Your task to perform on an android device: check the backup settings in the google photos Image 0: 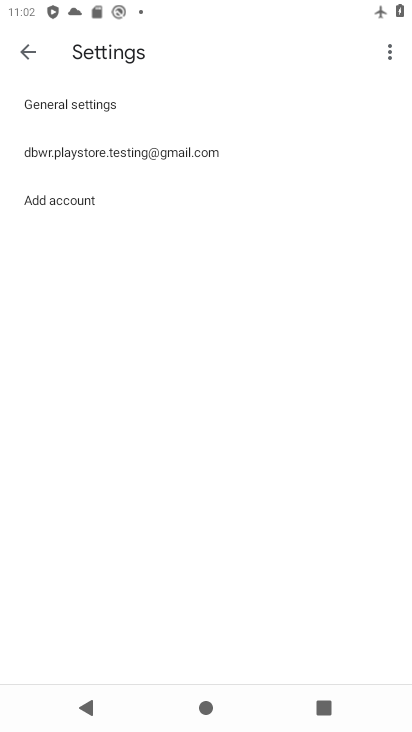
Step 0: press home button
Your task to perform on an android device: check the backup settings in the google photos Image 1: 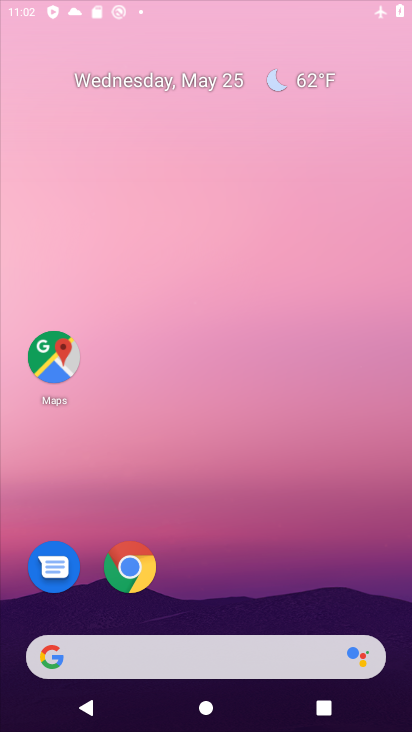
Step 1: drag from (343, 629) to (230, 25)
Your task to perform on an android device: check the backup settings in the google photos Image 2: 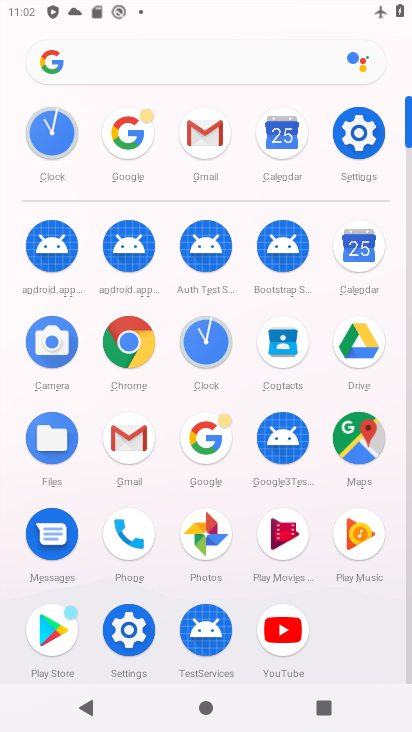
Step 2: click (232, 553)
Your task to perform on an android device: check the backup settings in the google photos Image 3: 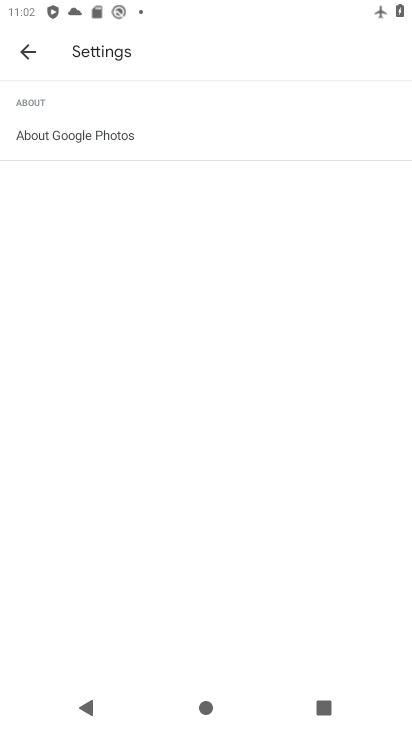
Step 3: press back button
Your task to perform on an android device: check the backup settings in the google photos Image 4: 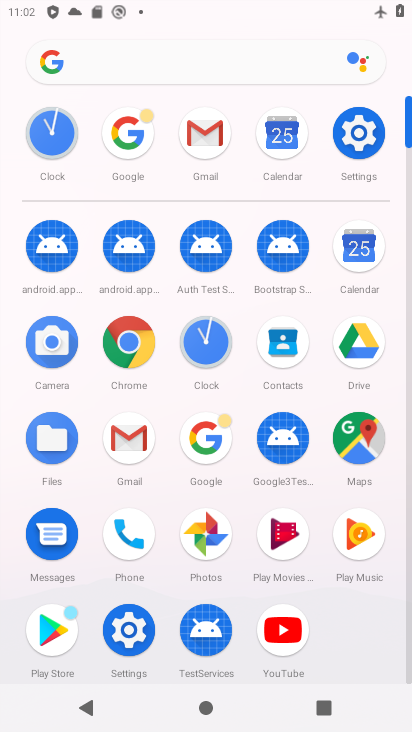
Step 4: click (204, 528)
Your task to perform on an android device: check the backup settings in the google photos Image 5: 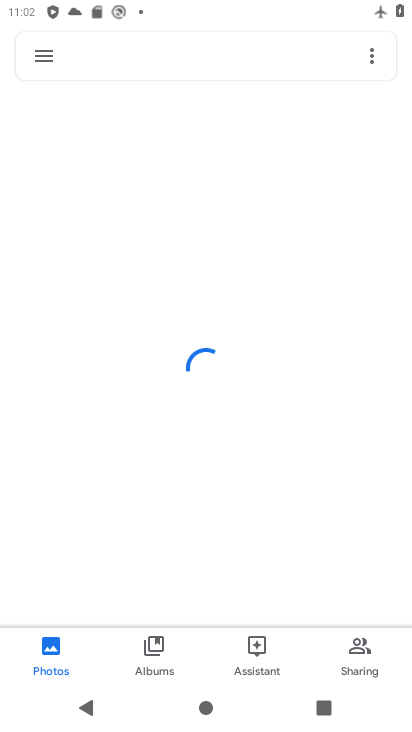
Step 5: click (44, 47)
Your task to perform on an android device: check the backup settings in the google photos Image 6: 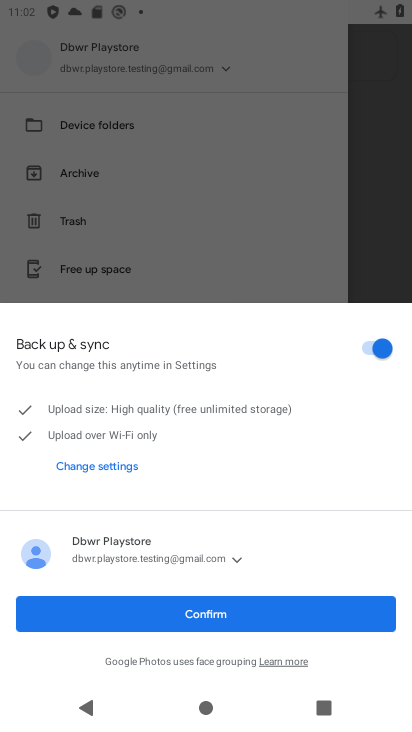
Step 6: click (220, 610)
Your task to perform on an android device: check the backup settings in the google photos Image 7: 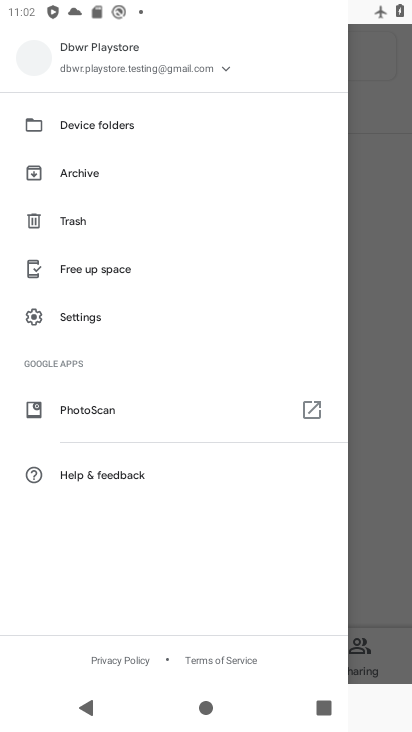
Step 7: click (93, 314)
Your task to perform on an android device: check the backup settings in the google photos Image 8: 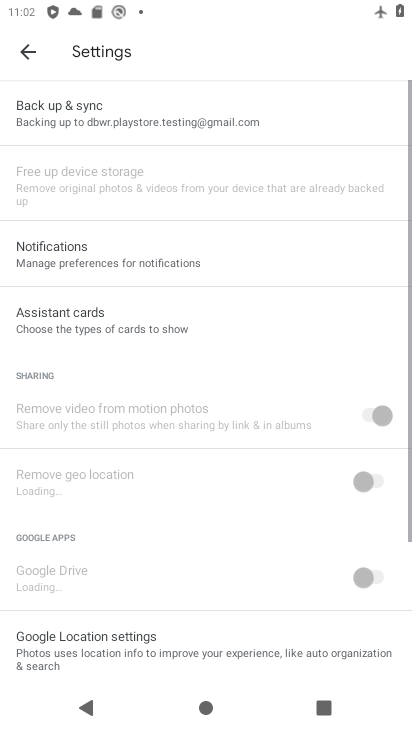
Step 8: click (251, 111)
Your task to perform on an android device: check the backup settings in the google photos Image 9: 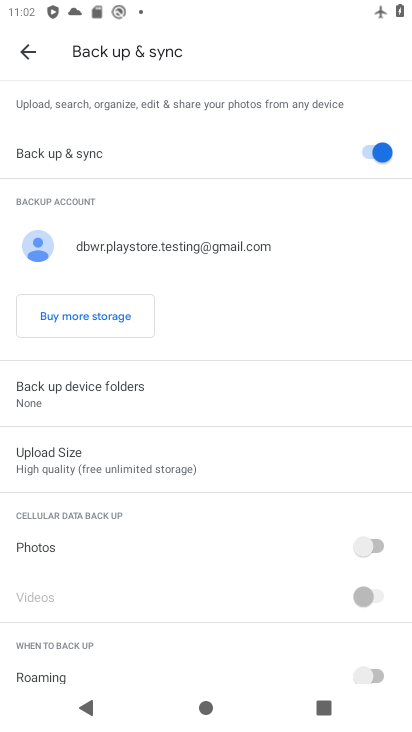
Step 9: task complete